Your task to perform on an android device: Open Google Maps and go to "Timeline" Image 0: 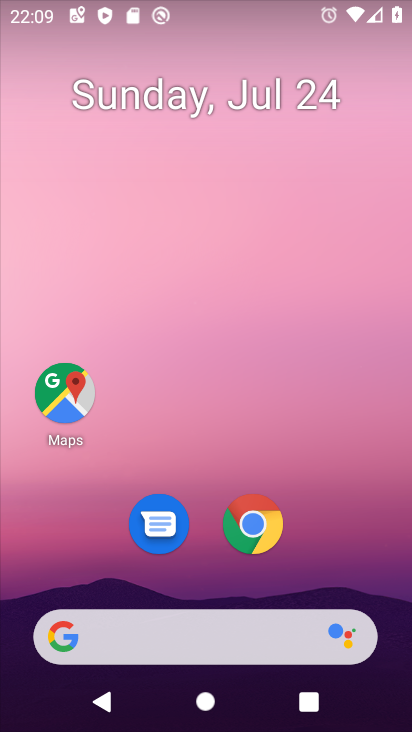
Step 0: click (62, 404)
Your task to perform on an android device: Open Google Maps and go to "Timeline" Image 1: 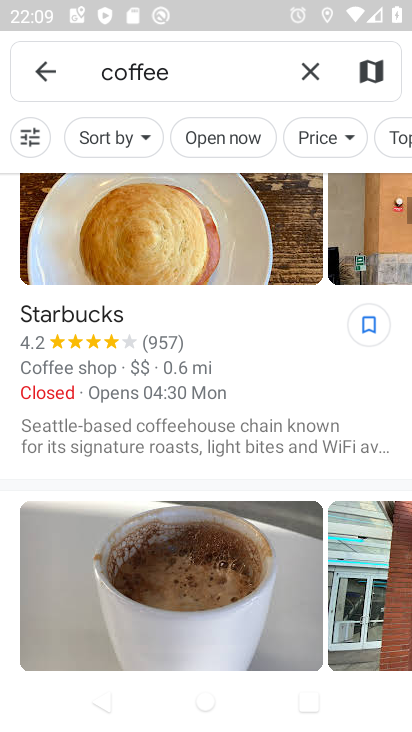
Step 1: click (45, 67)
Your task to perform on an android device: Open Google Maps and go to "Timeline" Image 2: 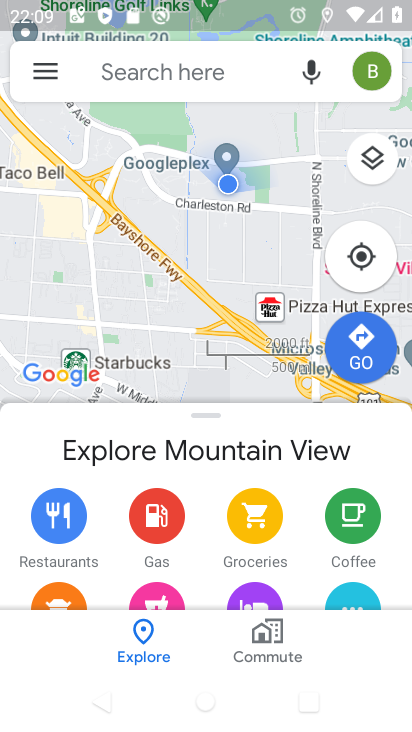
Step 2: click (43, 69)
Your task to perform on an android device: Open Google Maps and go to "Timeline" Image 3: 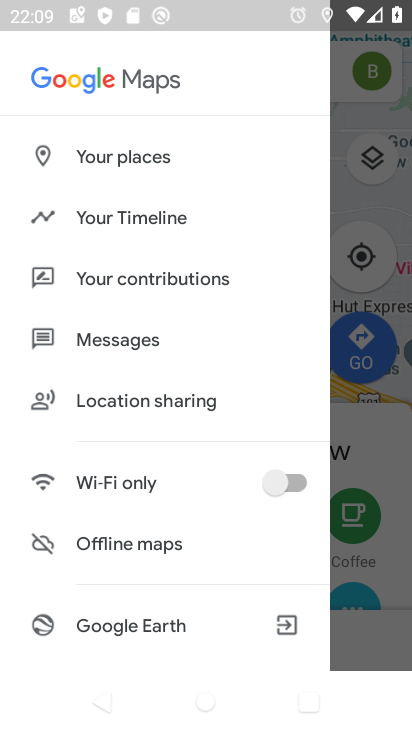
Step 3: click (118, 215)
Your task to perform on an android device: Open Google Maps and go to "Timeline" Image 4: 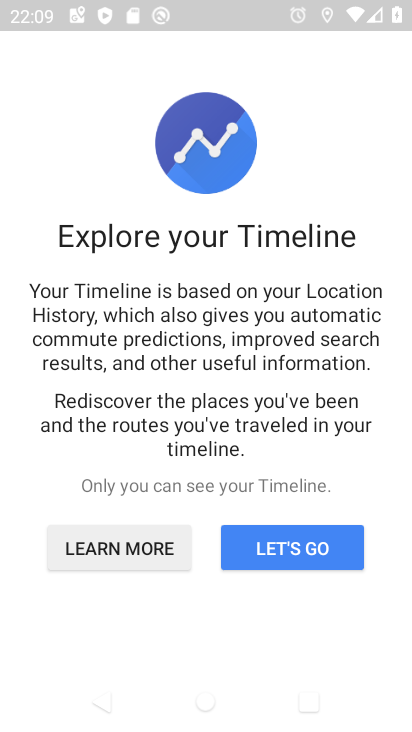
Step 4: click (288, 554)
Your task to perform on an android device: Open Google Maps and go to "Timeline" Image 5: 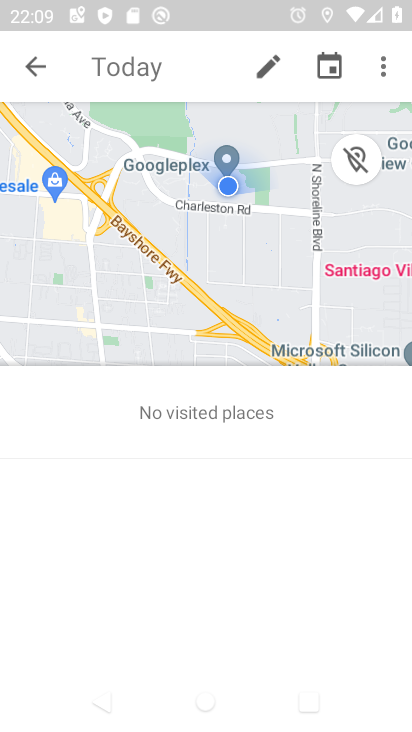
Step 5: task complete